Your task to perform on an android device: Open the stopwatch Image 0: 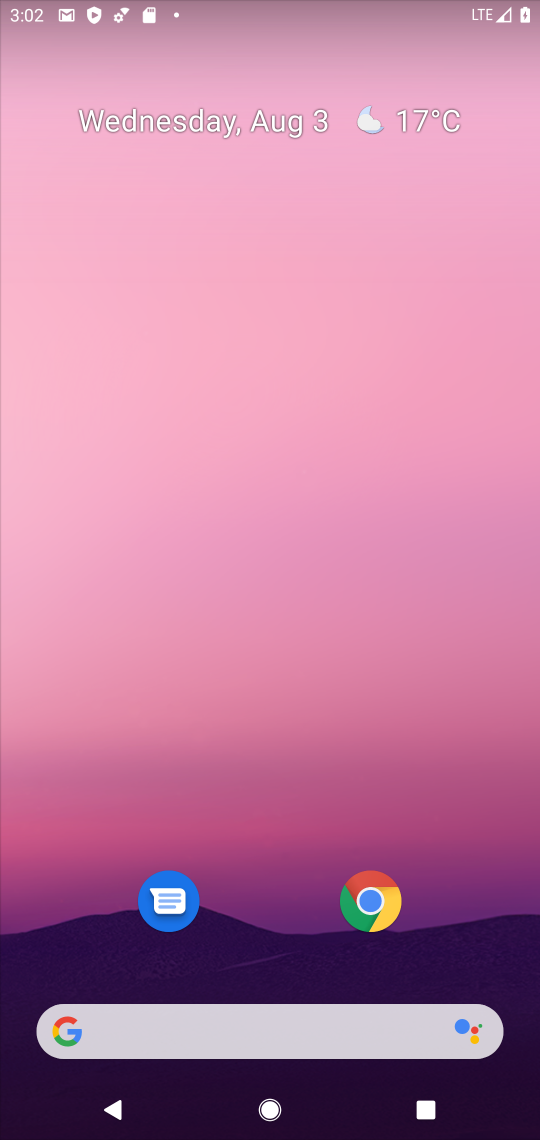
Step 0: drag from (314, 985) to (361, 353)
Your task to perform on an android device: Open the stopwatch Image 1: 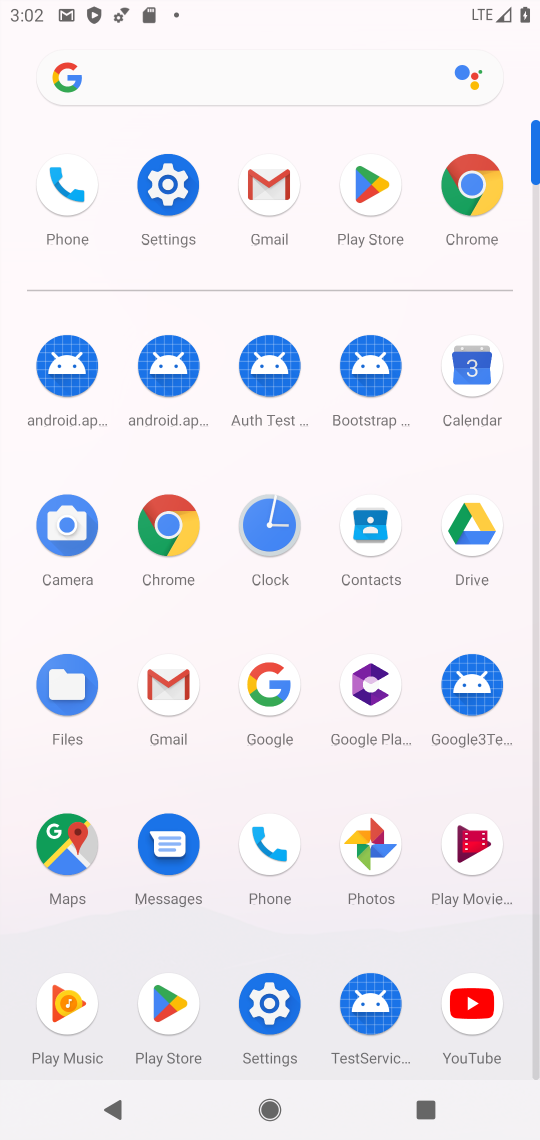
Step 1: click (276, 530)
Your task to perform on an android device: Open the stopwatch Image 2: 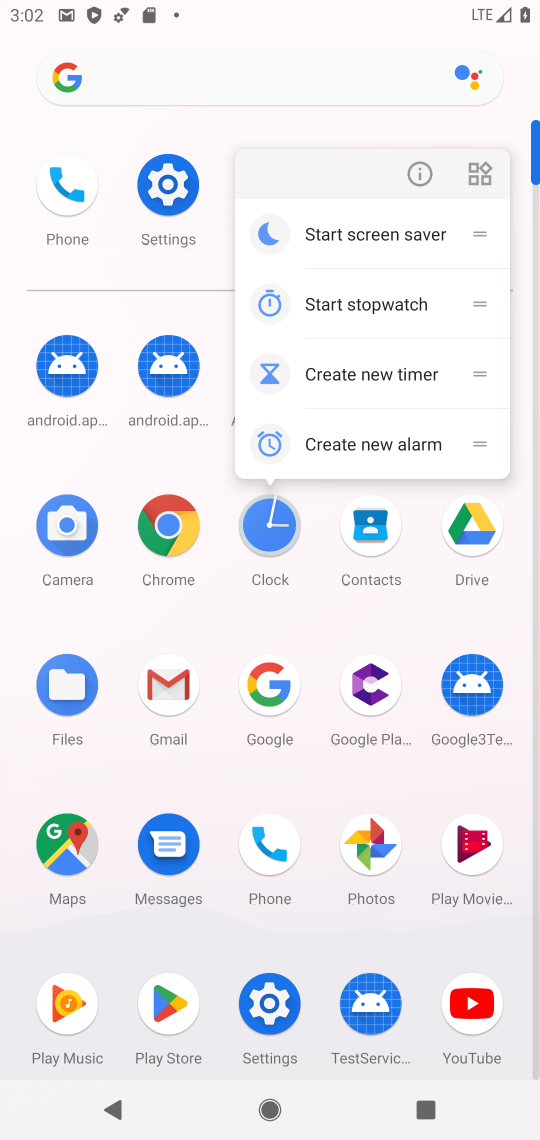
Step 2: click (276, 530)
Your task to perform on an android device: Open the stopwatch Image 3: 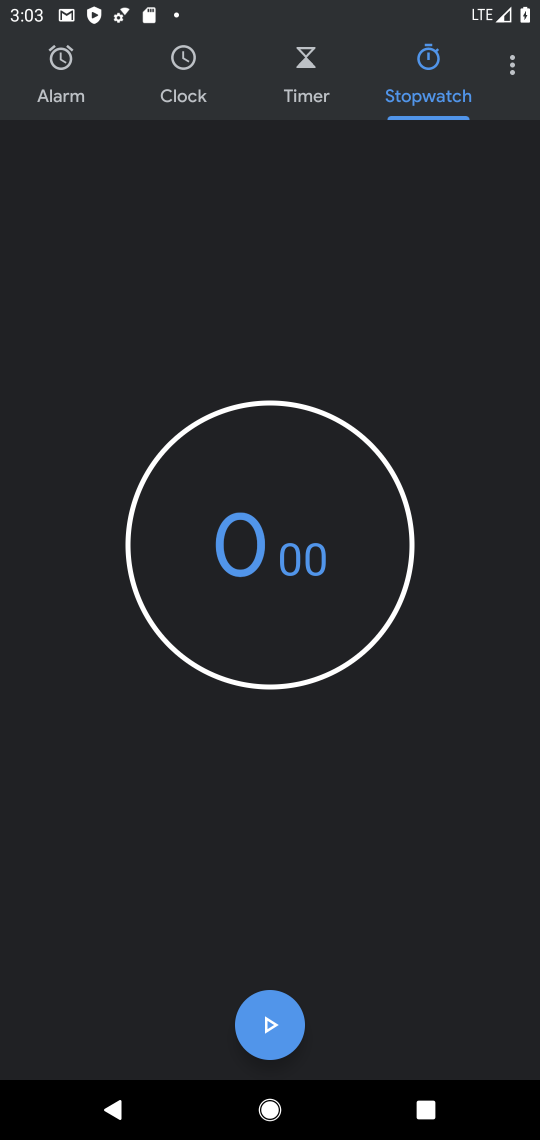
Step 3: task complete